Your task to perform on an android device: turn notification dots on Image 0: 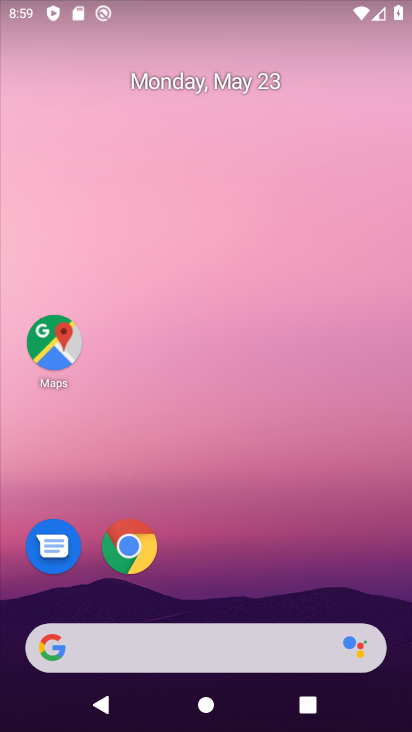
Step 0: drag from (180, 519) to (192, 160)
Your task to perform on an android device: turn notification dots on Image 1: 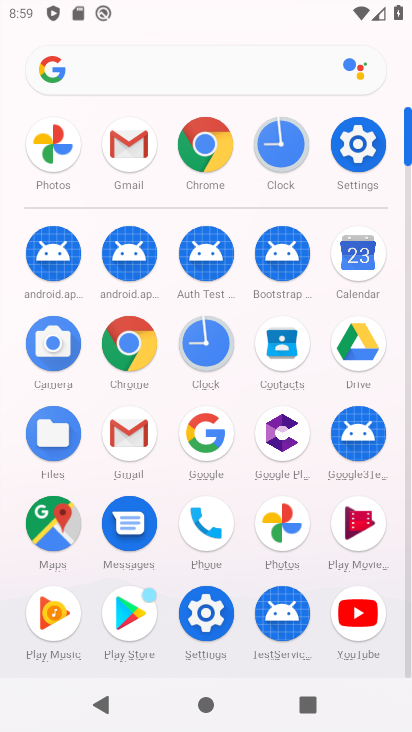
Step 1: click (347, 139)
Your task to perform on an android device: turn notification dots on Image 2: 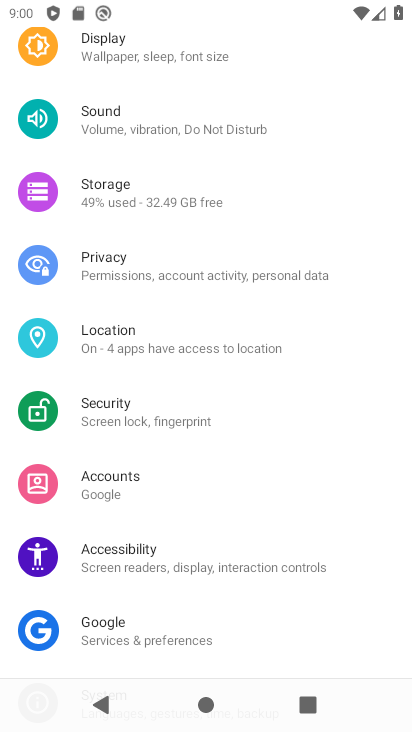
Step 2: drag from (279, 154) to (194, 626)
Your task to perform on an android device: turn notification dots on Image 3: 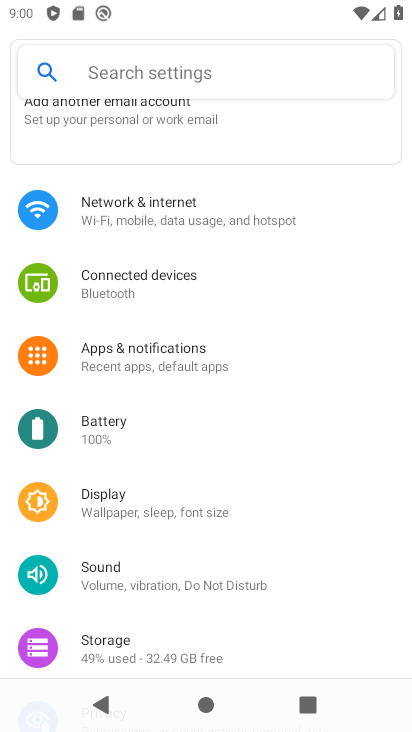
Step 3: click (136, 362)
Your task to perform on an android device: turn notification dots on Image 4: 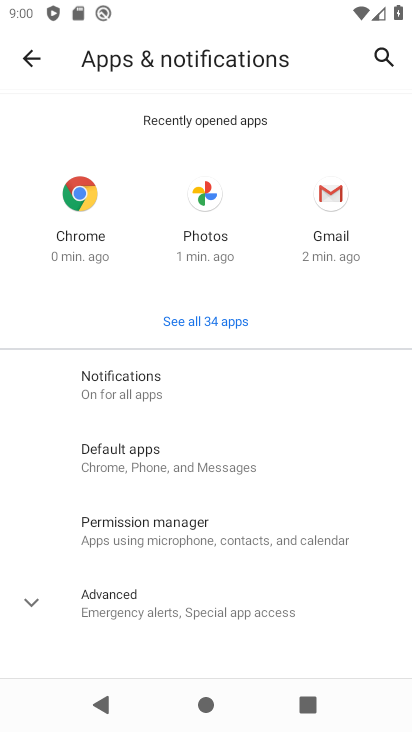
Step 4: click (124, 379)
Your task to perform on an android device: turn notification dots on Image 5: 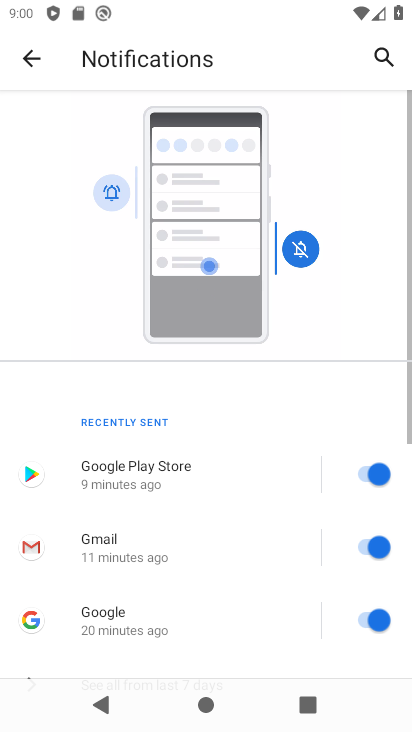
Step 5: drag from (170, 570) to (233, 103)
Your task to perform on an android device: turn notification dots on Image 6: 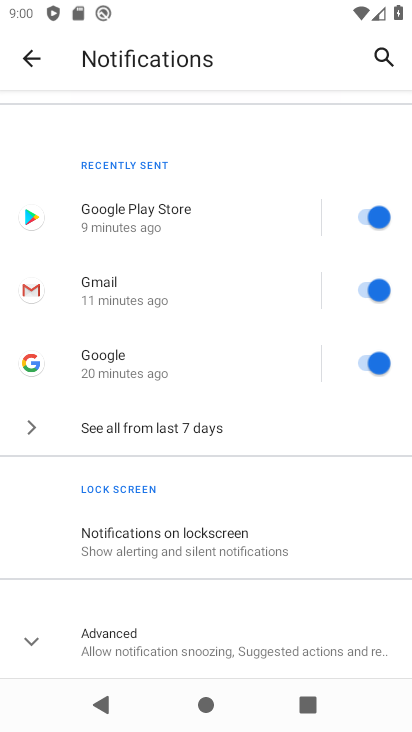
Step 6: click (148, 639)
Your task to perform on an android device: turn notification dots on Image 7: 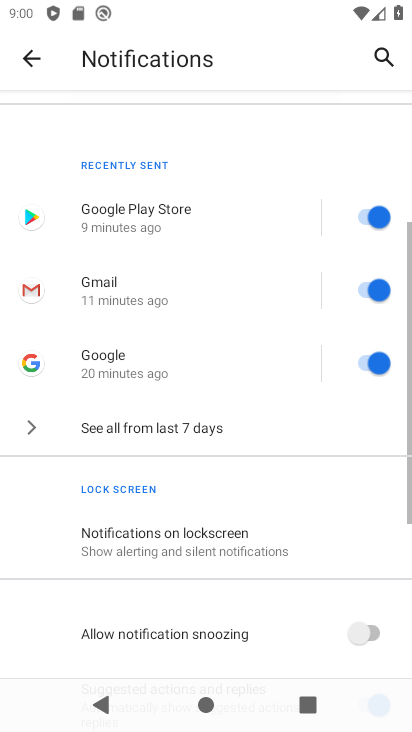
Step 7: task complete